Your task to perform on an android device: Open Yahoo.com Image 0: 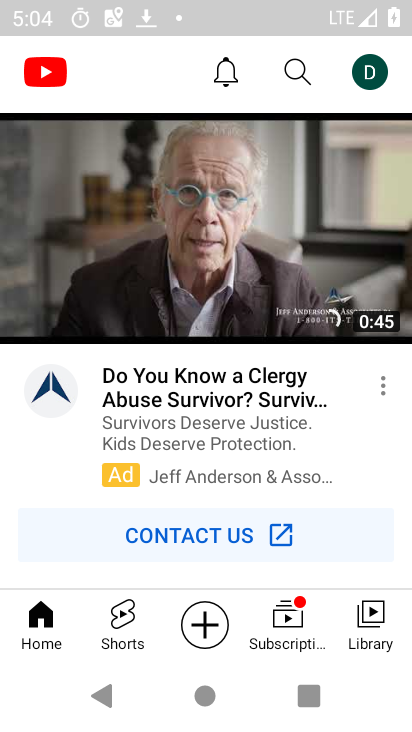
Step 0: press home button
Your task to perform on an android device: Open Yahoo.com Image 1: 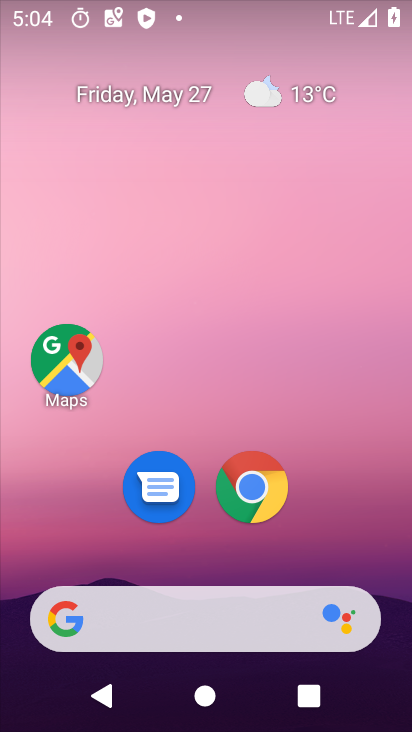
Step 1: click (265, 489)
Your task to perform on an android device: Open Yahoo.com Image 2: 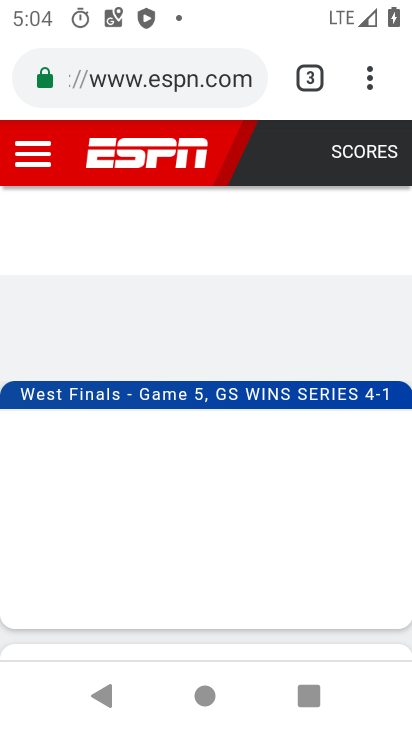
Step 2: click (213, 83)
Your task to perform on an android device: Open Yahoo.com Image 3: 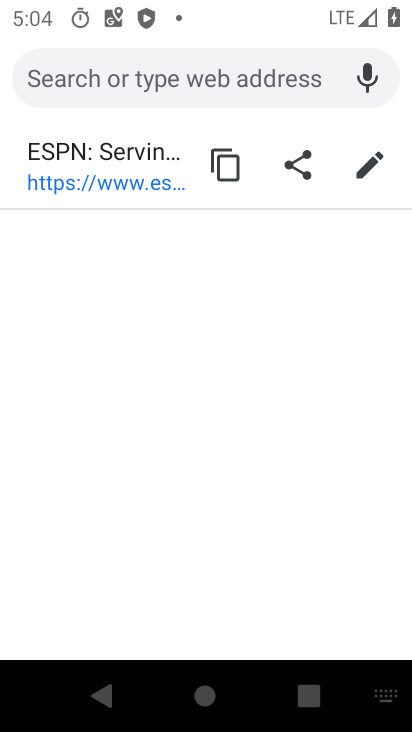
Step 3: type "yahoo.com"
Your task to perform on an android device: Open Yahoo.com Image 4: 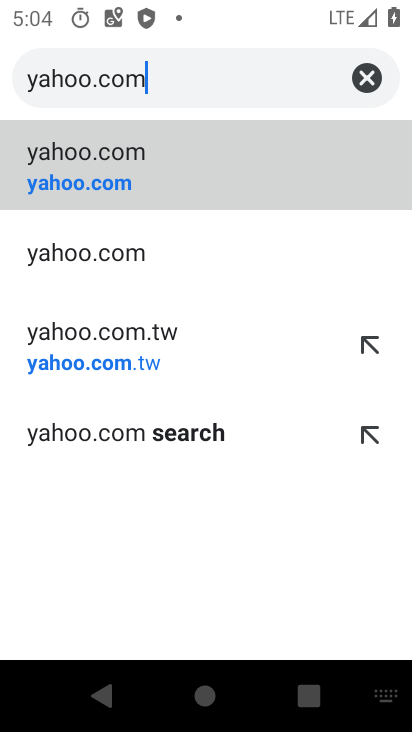
Step 4: click (116, 174)
Your task to perform on an android device: Open Yahoo.com Image 5: 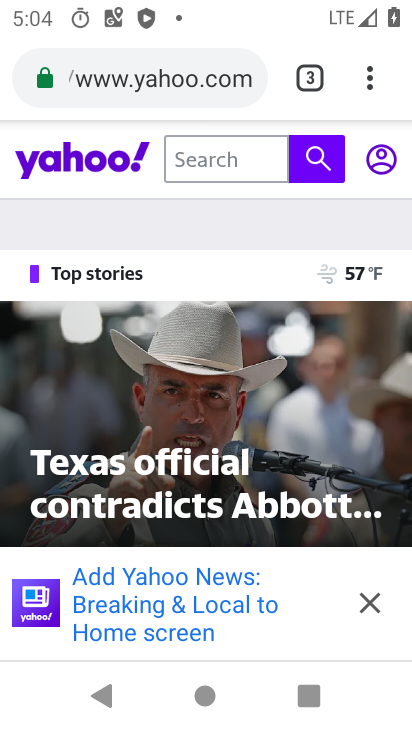
Step 5: task complete